Your task to perform on an android device: turn on the 24-hour format for clock Image 0: 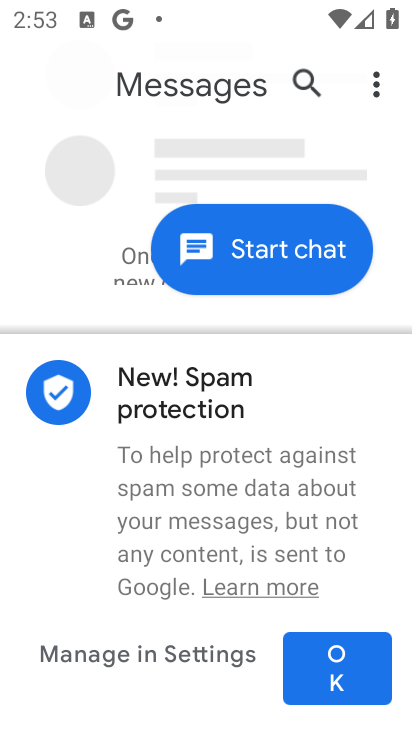
Step 0: press home button
Your task to perform on an android device: turn on the 24-hour format for clock Image 1: 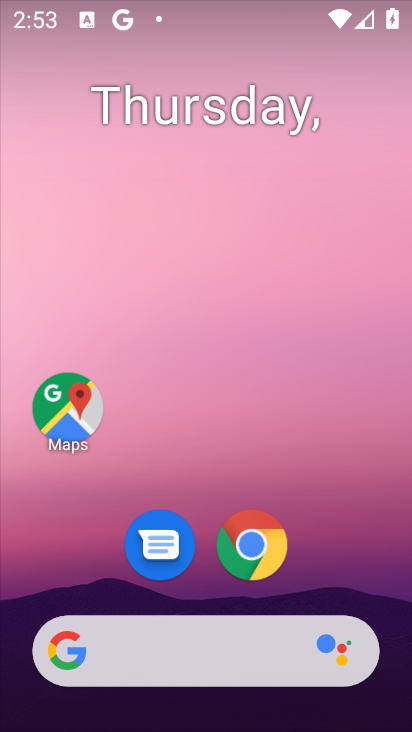
Step 1: drag from (205, 707) to (264, 63)
Your task to perform on an android device: turn on the 24-hour format for clock Image 2: 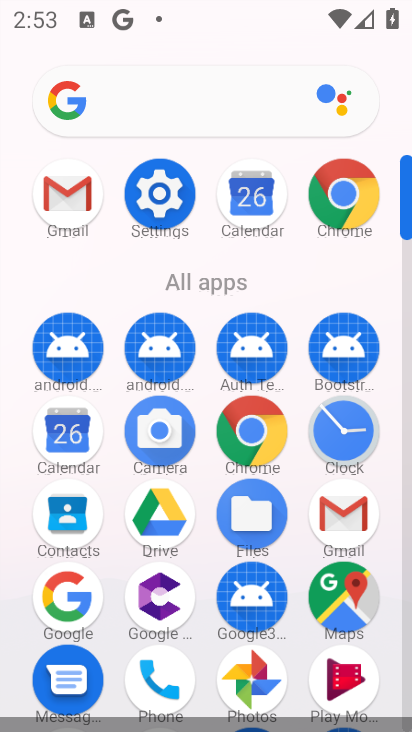
Step 2: click (342, 412)
Your task to perform on an android device: turn on the 24-hour format for clock Image 3: 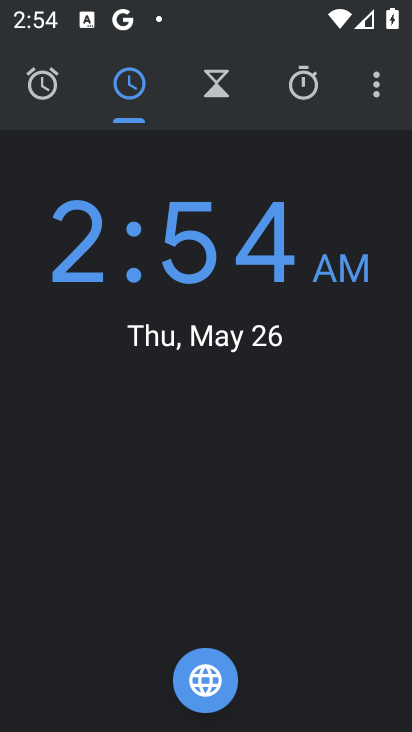
Step 3: click (378, 87)
Your task to perform on an android device: turn on the 24-hour format for clock Image 4: 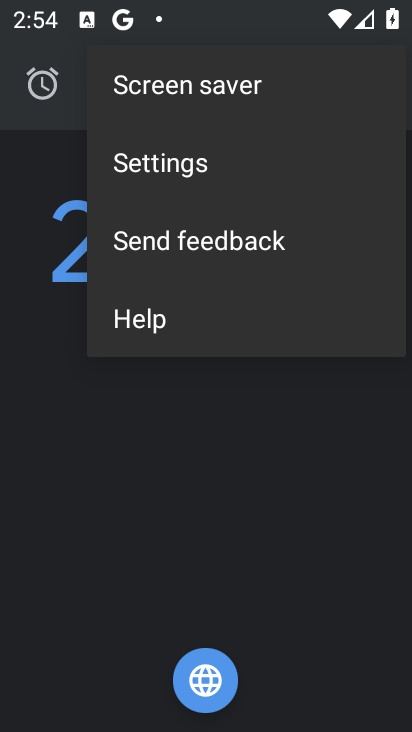
Step 4: click (255, 164)
Your task to perform on an android device: turn on the 24-hour format for clock Image 5: 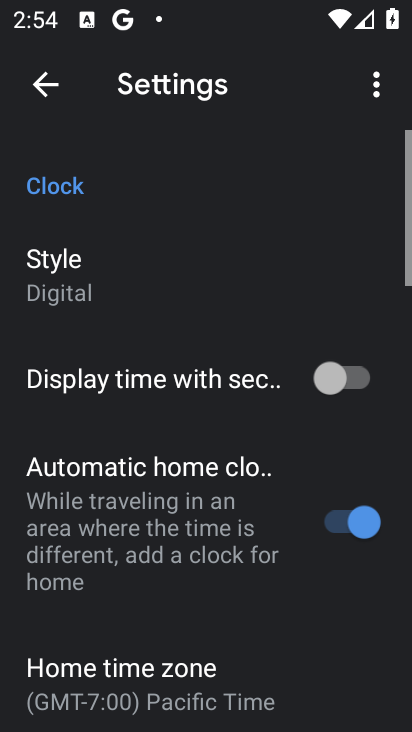
Step 5: drag from (301, 668) to (320, 180)
Your task to perform on an android device: turn on the 24-hour format for clock Image 6: 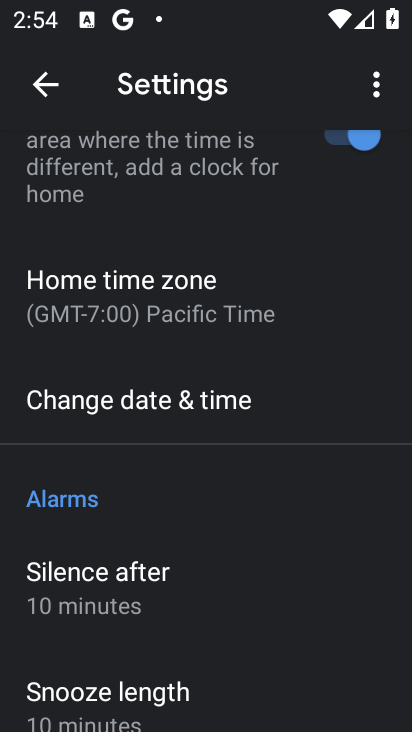
Step 6: click (253, 396)
Your task to perform on an android device: turn on the 24-hour format for clock Image 7: 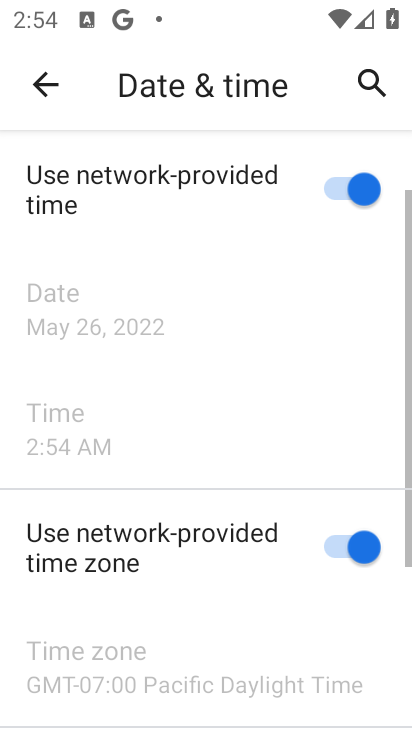
Step 7: drag from (264, 580) to (307, 28)
Your task to perform on an android device: turn on the 24-hour format for clock Image 8: 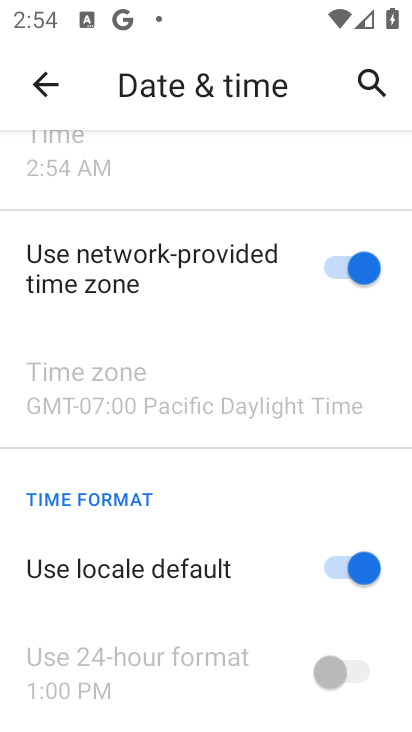
Step 8: click (355, 578)
Your task to perform on an android device: turn on the 24-hour format for clock Image 9: 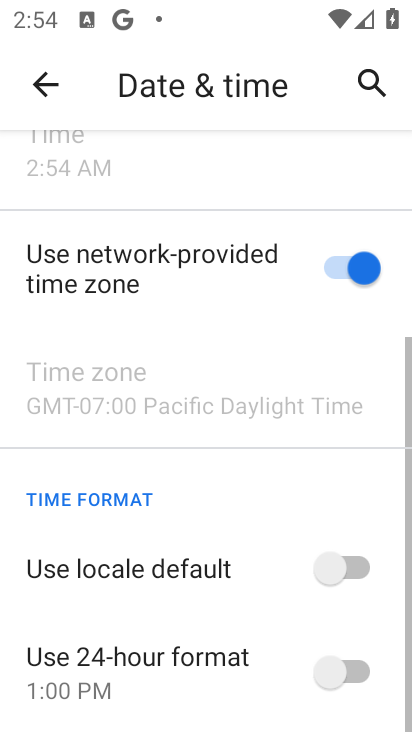
Step 9: click (341, 688)
Your task to perform on an android device: turn on the 24-hour format for clock Image 10: 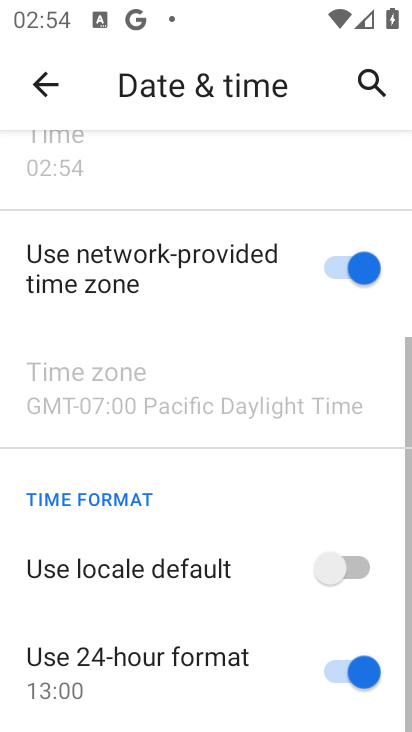
Step 10: task complete